Your task to perform on an android device: check out phone information Image 0: 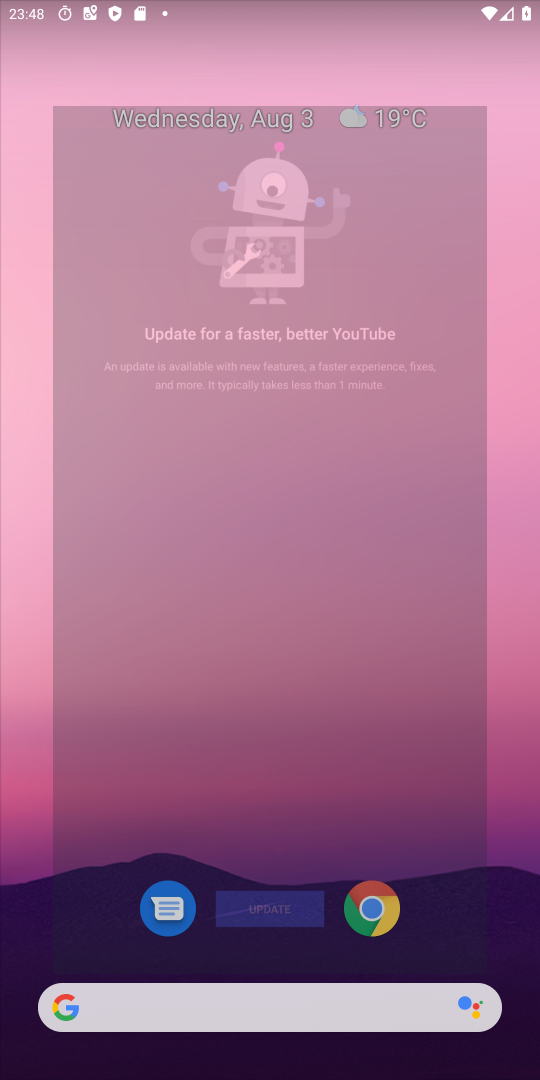
Step 0: press home button
Your task to perform on an android device: check out phone information Image 1: 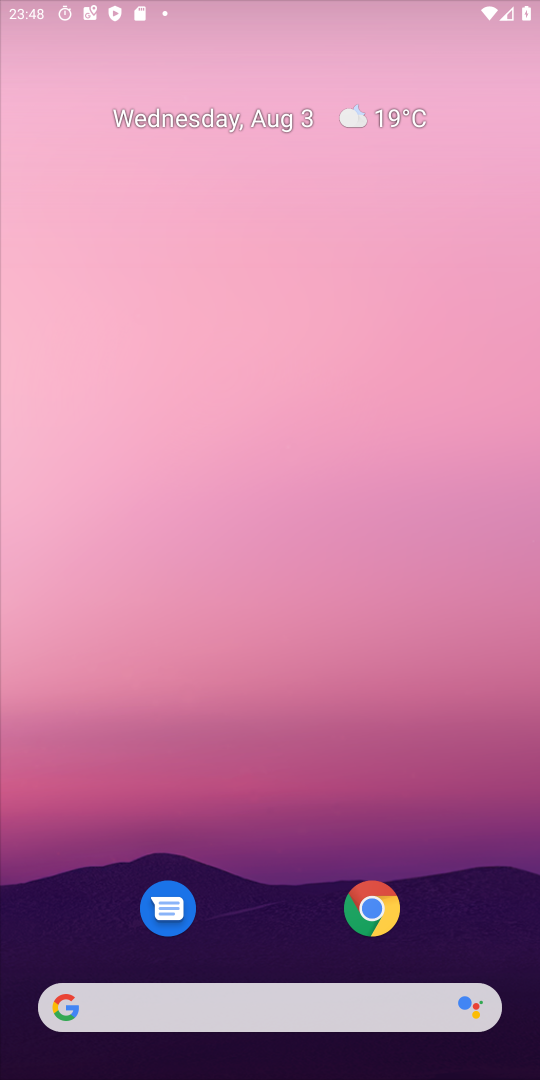
Step 1: drag from (359, 1044) to (318, 237)
Your task to perform on an android device: check out phone information Image 2: 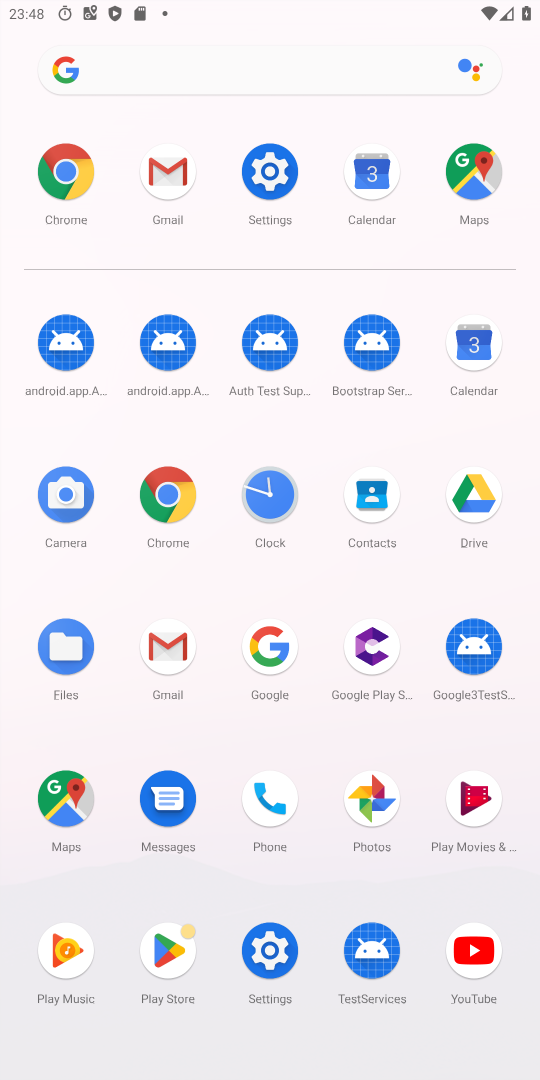
Step 2: click (271, 181)
Your task to perform on an android device: check out phone information Image 3: 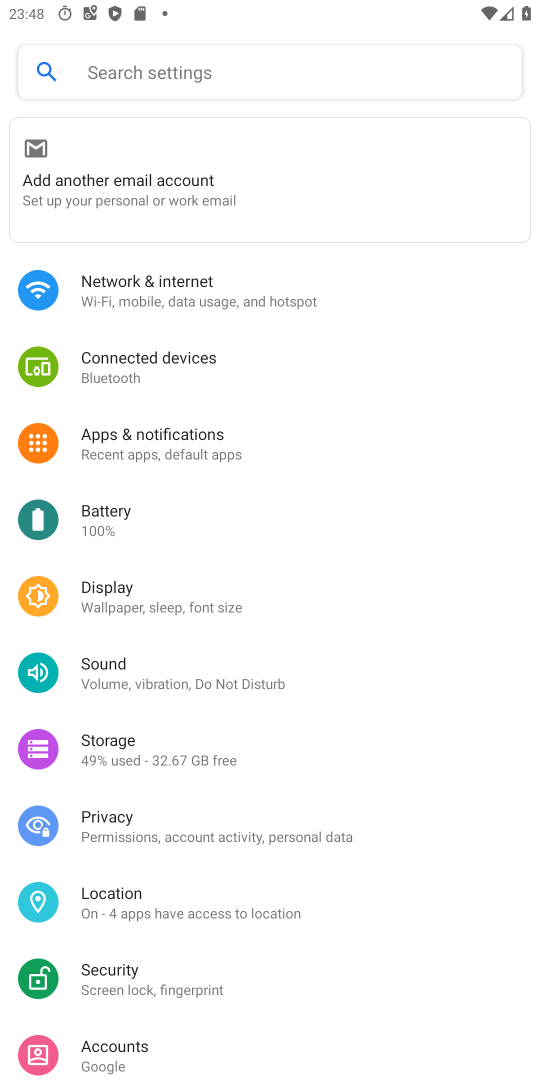
Step 3: click (161, 88)
Your task to perform on an android device: check out phone information Image 4: 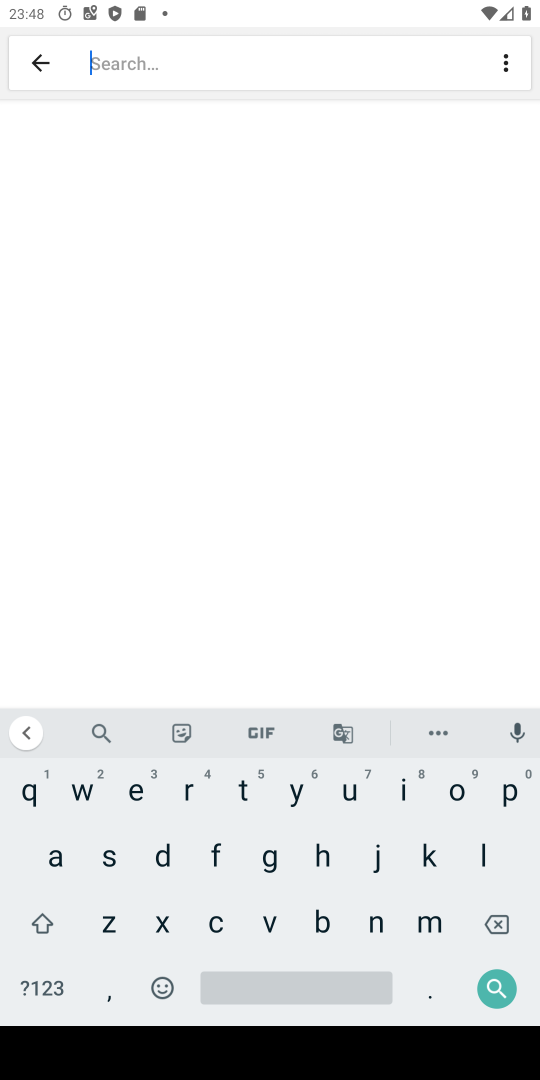
Step 4: click (44, 854)
Your task to perform on an android device: check out phone information Image 5: 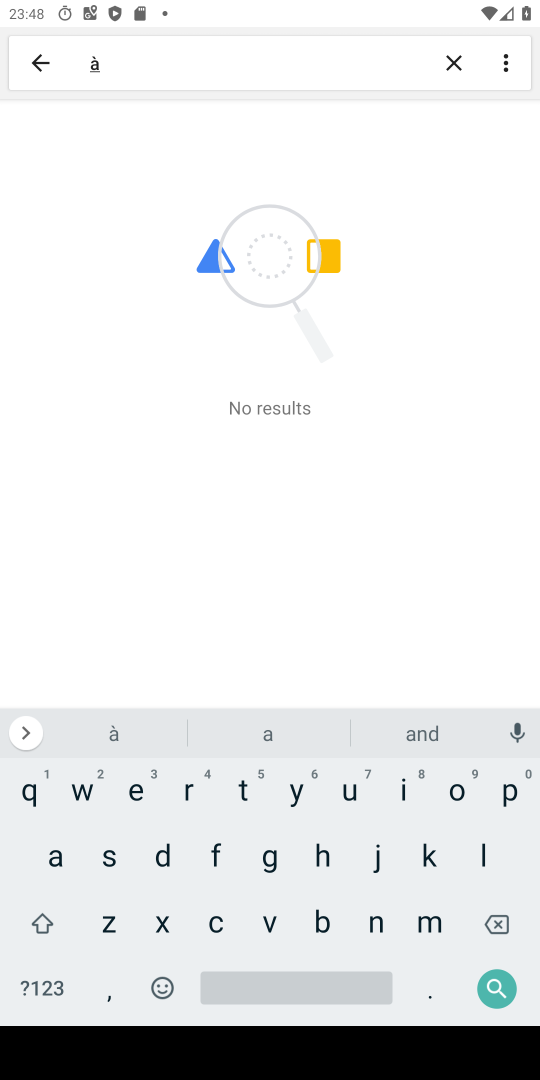
Step 5: click (453, 57)
Your task to perform on an android device: check out phone information Image 6: 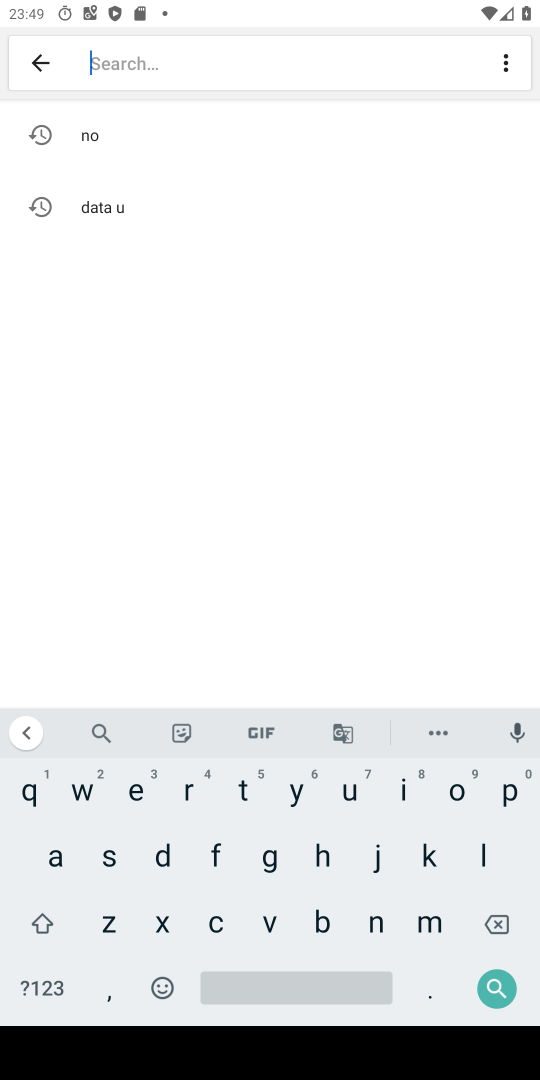
Step 6: click (48, 862)
Your task to perform on an android device: check out phone information Image 7: 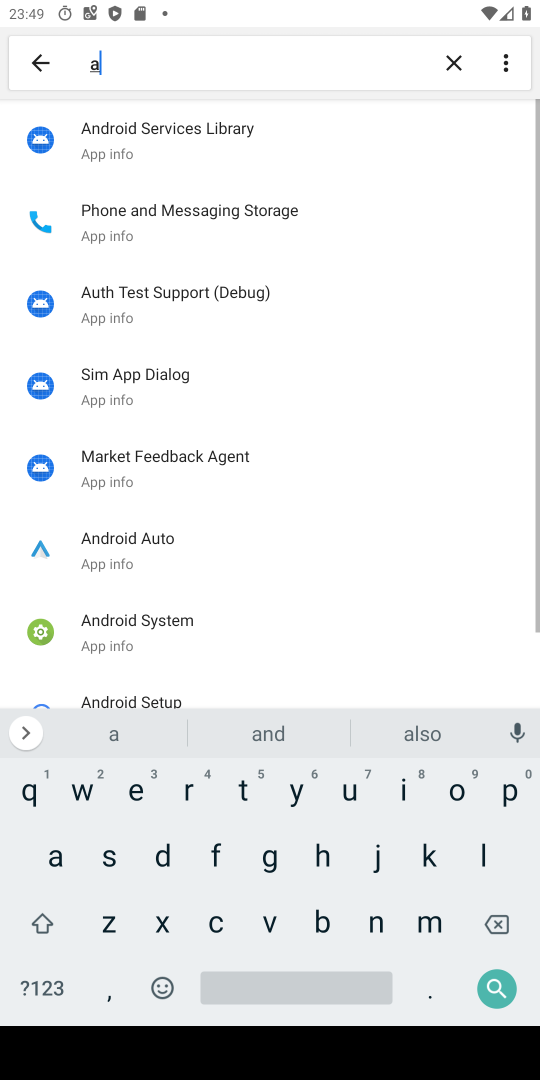
Step 7: click (314, 919)
Your task to perform on an android device: check out phone information Image 8: 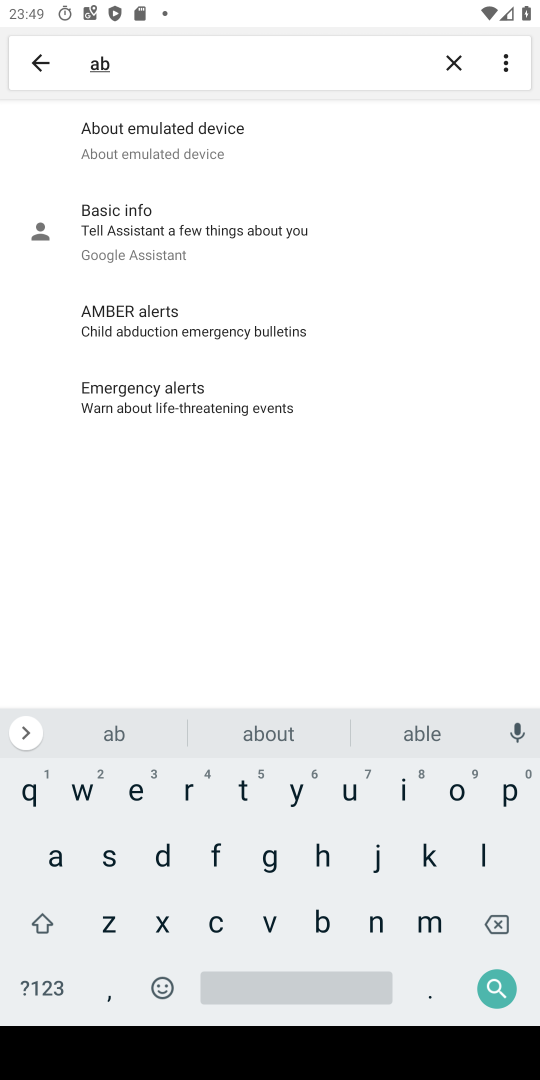
Step 8: click (235, 154)
Your task to perform on an android device: check out phone information Image 9: 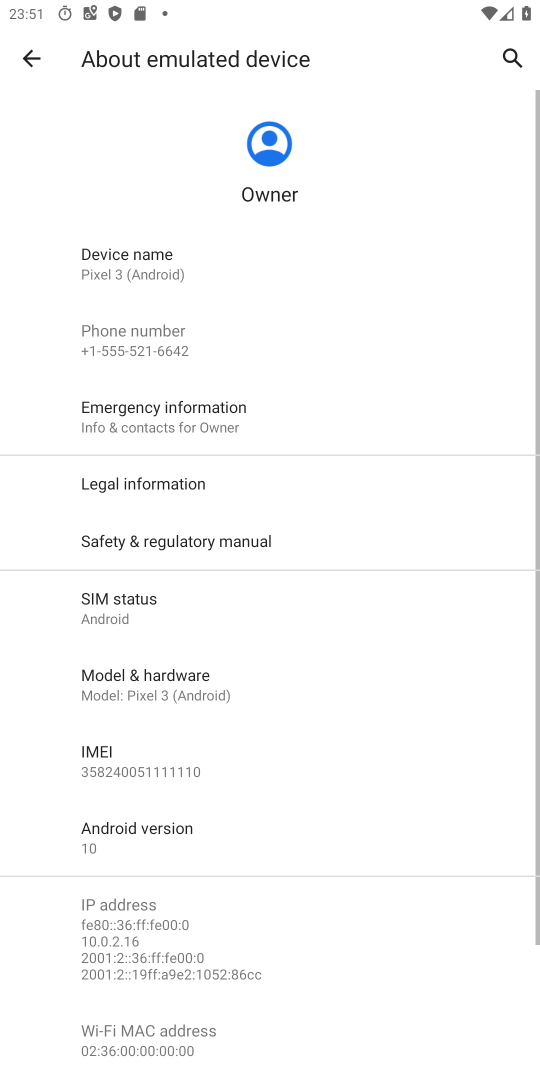
Step 9: task complete